Your task to perform on an android device: Search for flights from Buenos aires to Tokyo Image 0: 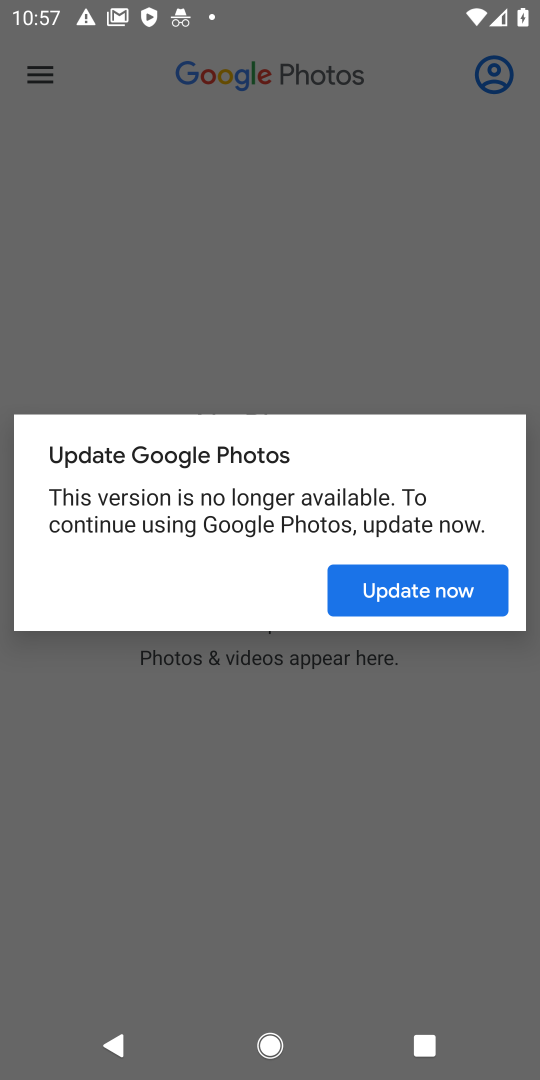
Step 0: press home button
Your task to perform on an android device: Search for flights from Buenos aires to Tokyo Image 1: 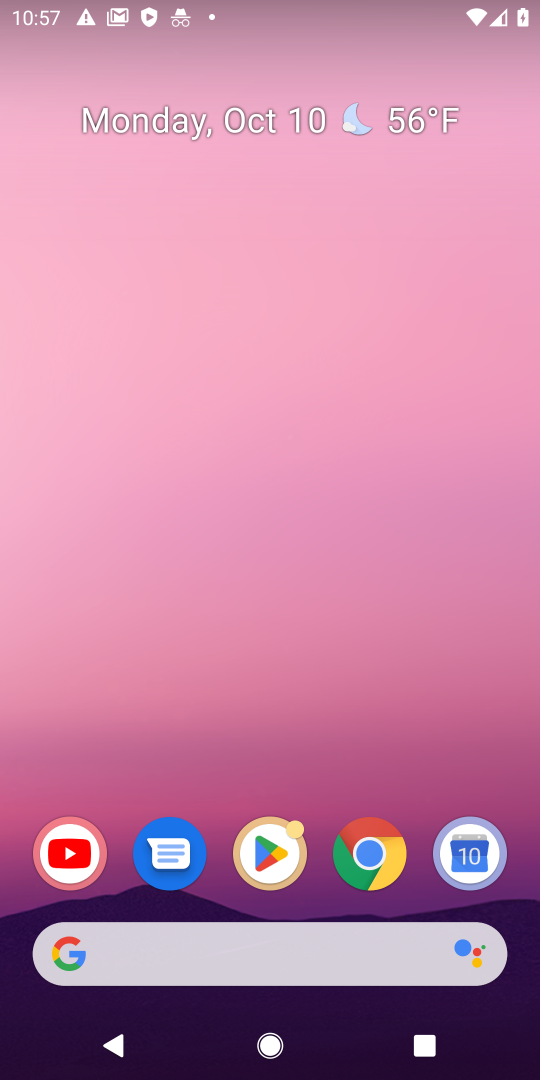
Step 1: click (322, 946)
Your task to perform on an android device: Search for flights from Buenos aires to Tokyo Image 2: 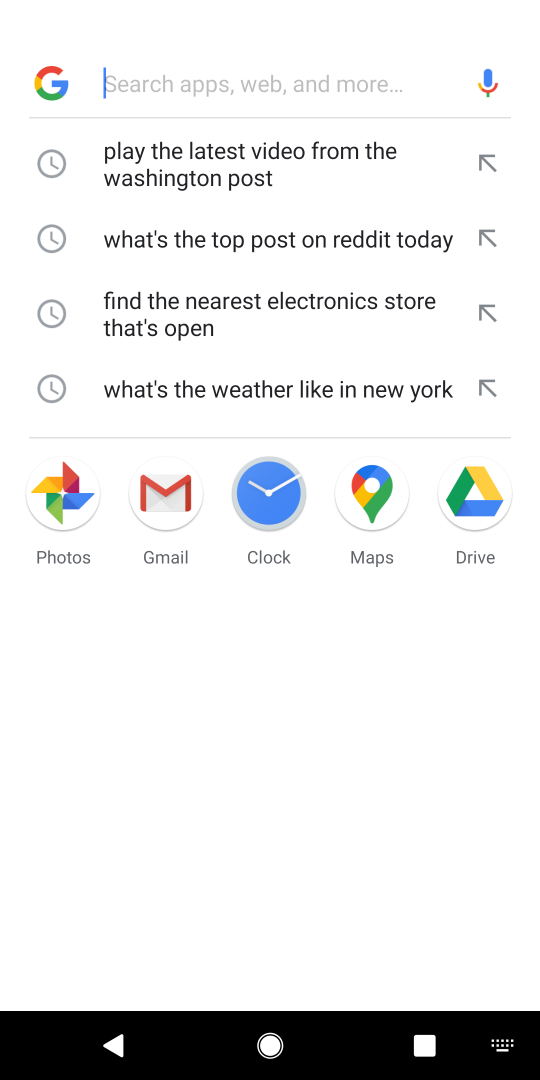
Step 2: type "flights from Buenos aires to Tokyo"
Your task to perform on an android device: Search for flights from Buenos aires to Tokyo Image 3: 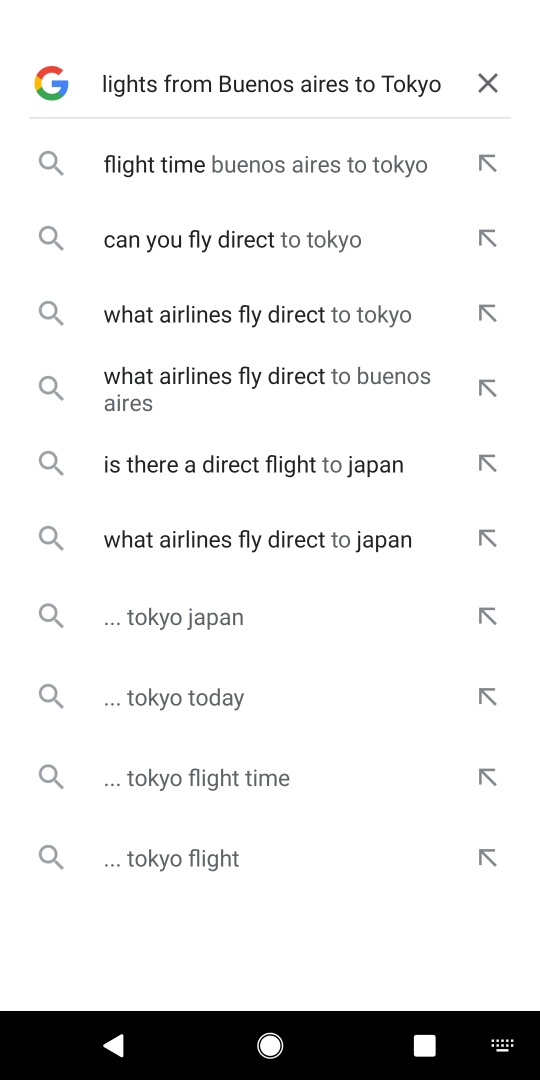
Step 3: press enter
Your task to perform on an android device: Search for flights from Buenos aires to Tokyo Image 4: 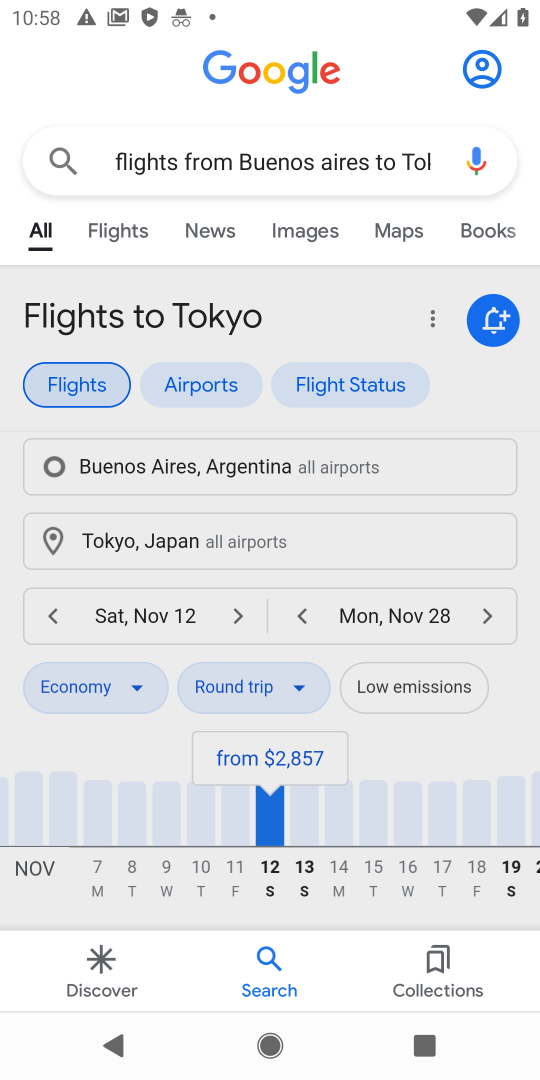
Step 4: drag from (381, 696) to (394, 400)
Your task to perform on an android device: Search for flights from Buenos aires to Tokyo Image 5: 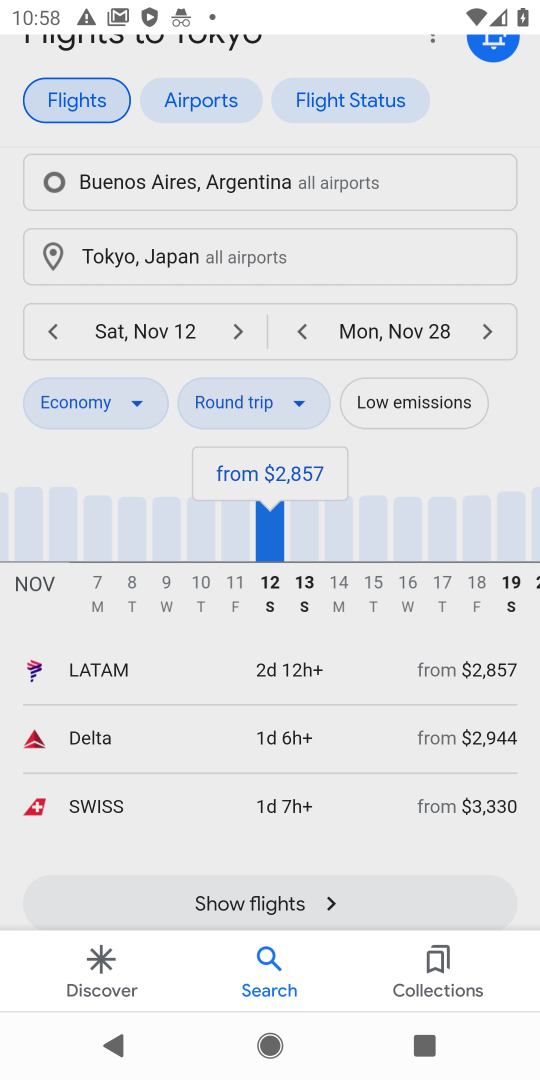
Step 5: drag from (417, 638) to (408, 418)
Your task to perform on an android device: Search for flights from Buenos aires to Tokyo Image 6: 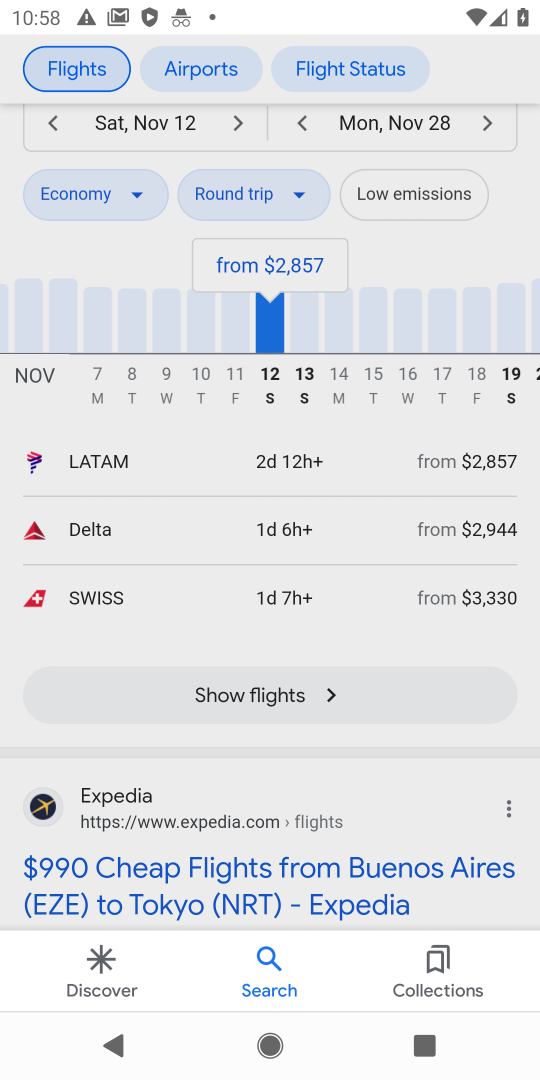
Step 6: drag from (373, 655) to (374, 432)
Your task to perform on an android device: Search for flights from Buenos aires to Tokyo Image 7: 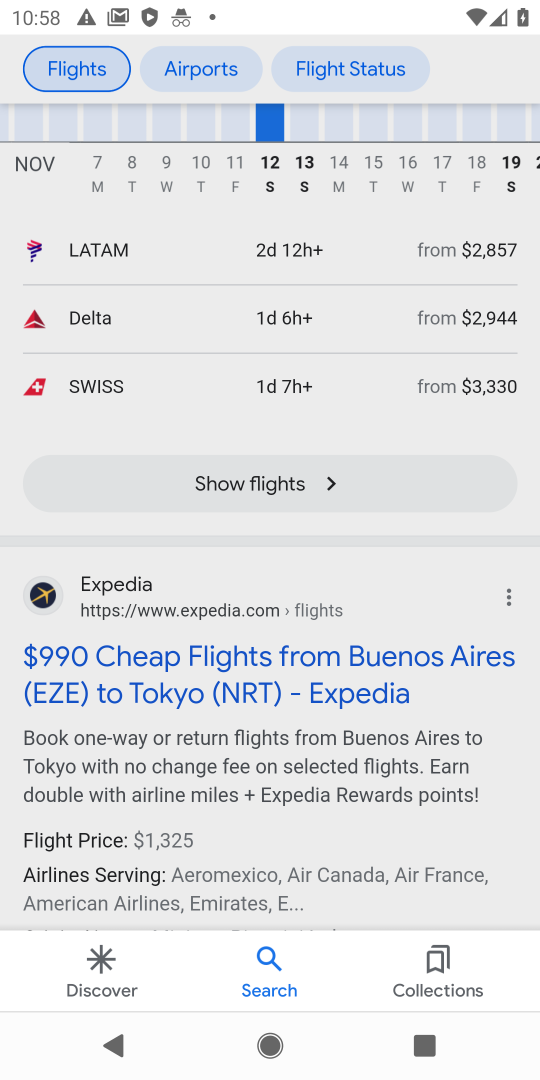
Step 7: click (246, 483)
Your task to perform on an android device: Search for flights from Buenos aires to Tokyo Image 8: 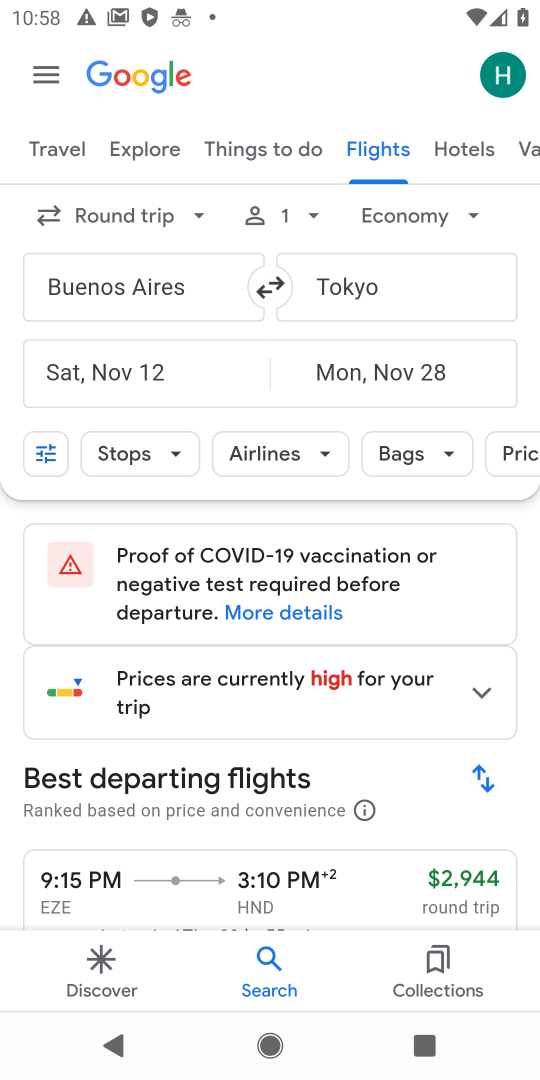
Step 8: task complete